Your task to perform on an android device: add a contact in the contacts app Image 0: 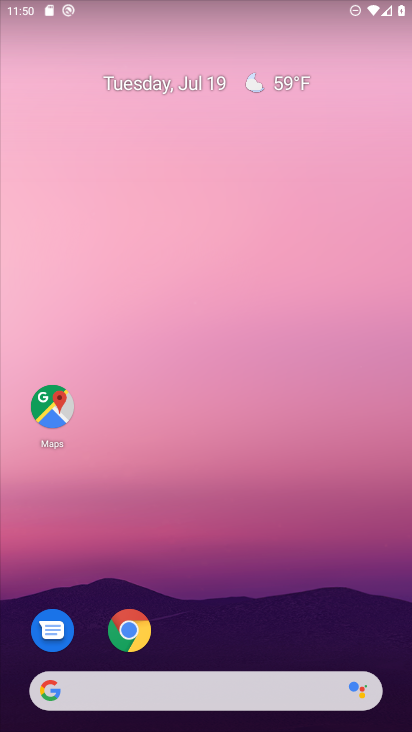
Step 0: drag from (300, 667) to (364, 5)
Your task to perform on an android device: add a contact in the contacts app Image 1: 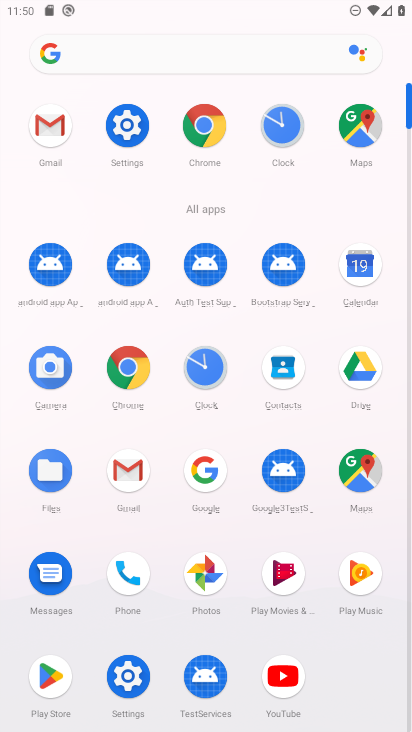
Step 1: click (285, 352)
Your task to perform on an android device: add a contact in the contacts app Image 2: 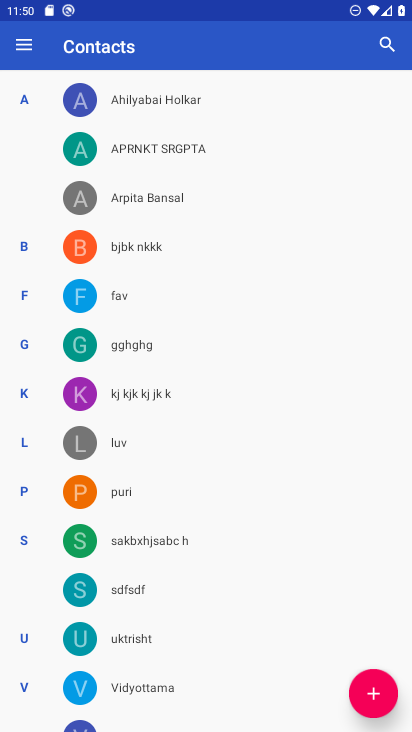
Step 2: click (372, 691)
Your task to perform on an android device: add a contact in the contacts app Image 3: 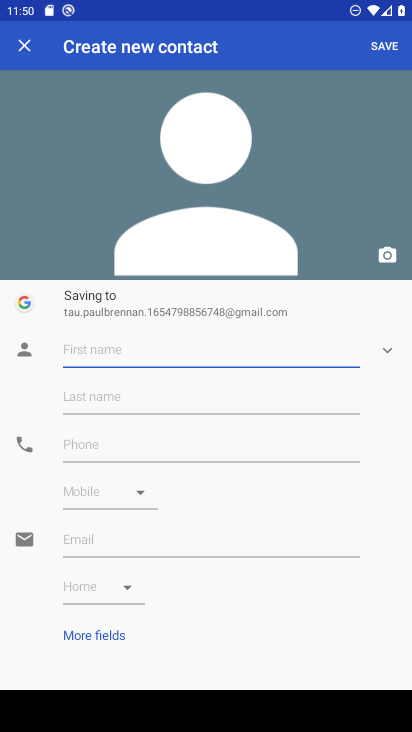
Step 3: type "sunny"
Your task to perform on an android device: add a contact in the contacts app Image 4: 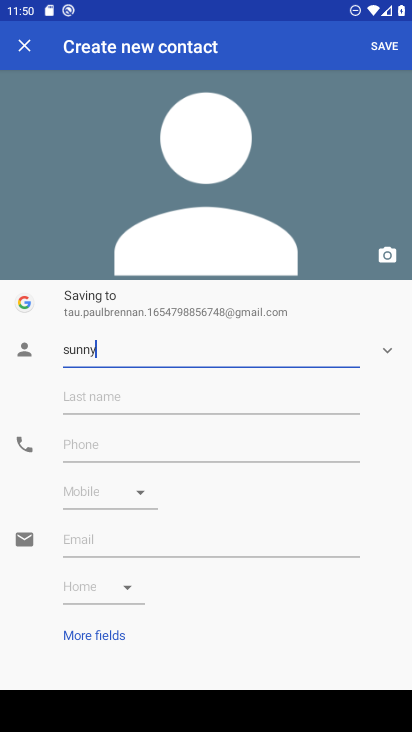
Step 4: click (132, 447)
Your task to perform on an android device: add a contact in the contacts app Image 5: 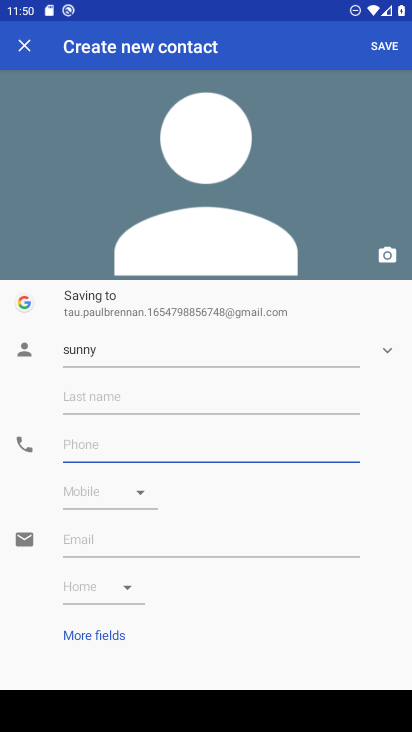
Step 5: type "97678912322"
Your task to perform on an android device: add a contact in the contacts app Image 6: 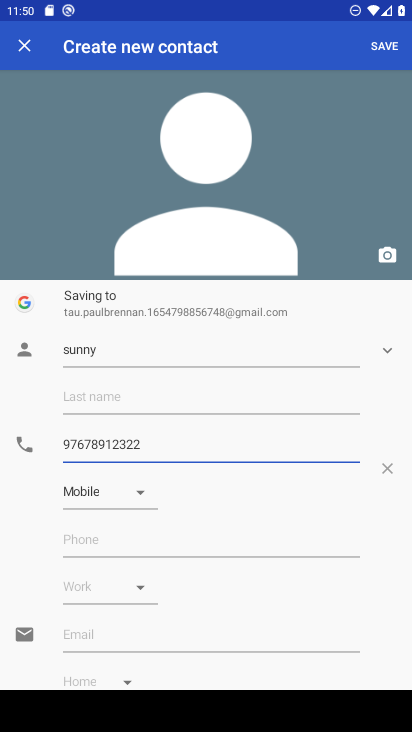
Step 6: click (391, 39)
Your task to perform on an android device: add a contact in the contacts app Image 7: 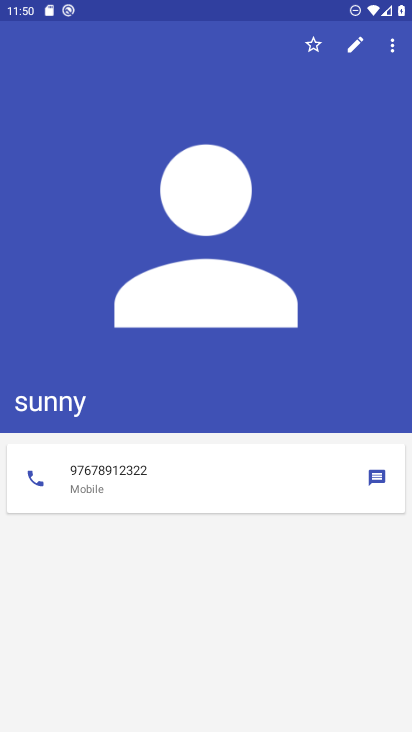
Step 7: task complete